Your task to perform on an android device: show emergency info Image 0: 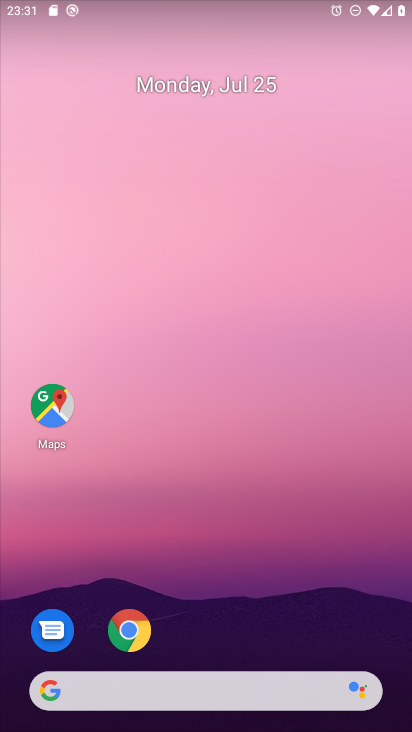
Step 0: drag from (339, 611) to (283, 53)
Your task to perform on an android device: show emergency info Image 1: 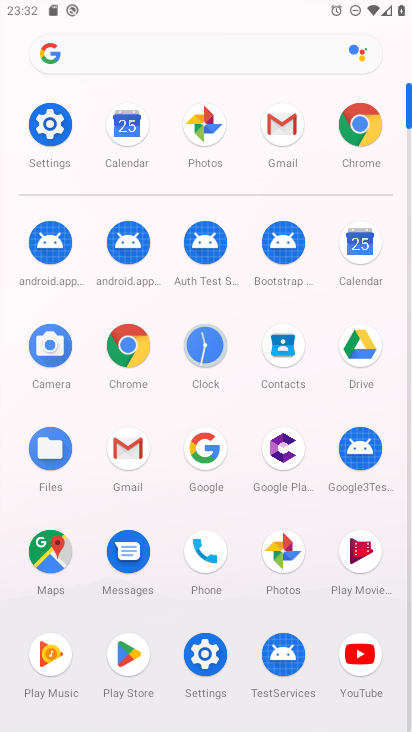
Step 1: click (52, 121)
Your task to perform on an android device: show emergency info Image 2: 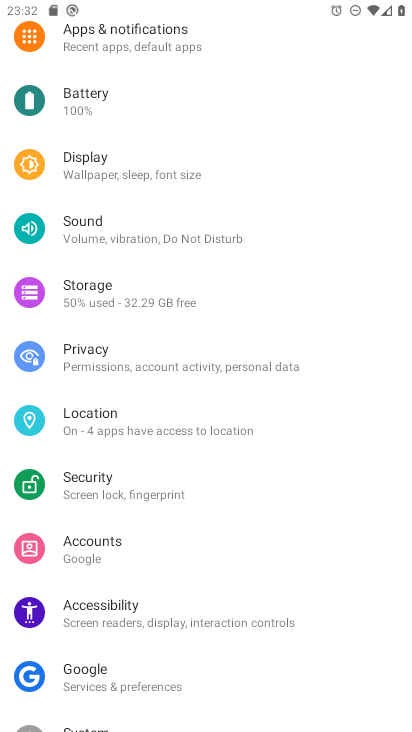
Step 2: drag from (216, 684) to (321, 188)
Your task to perform on an android device: show emergency info Image 3: 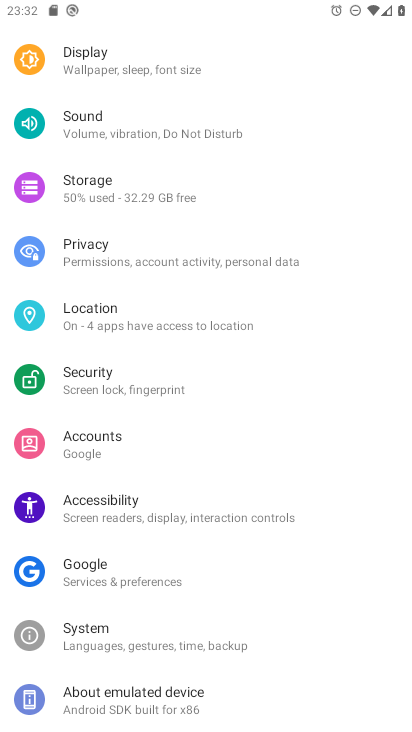
Step 3: click (165, 694)
Your task to perform on an android device: show emergency info Image 4: 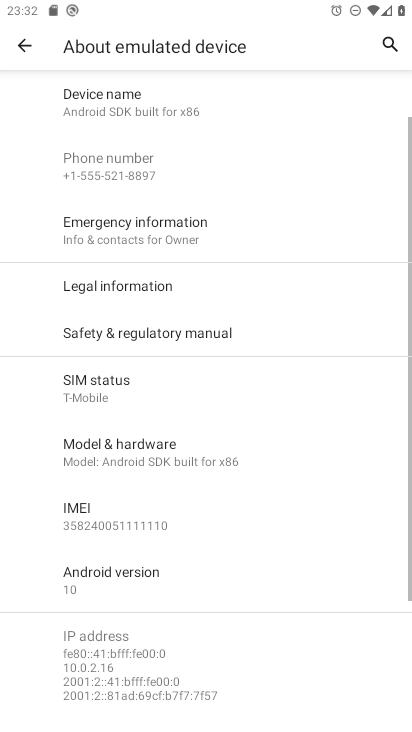
Step 4: click (143, 229)
Your task to perform on an android device: show emergency info Image 5: 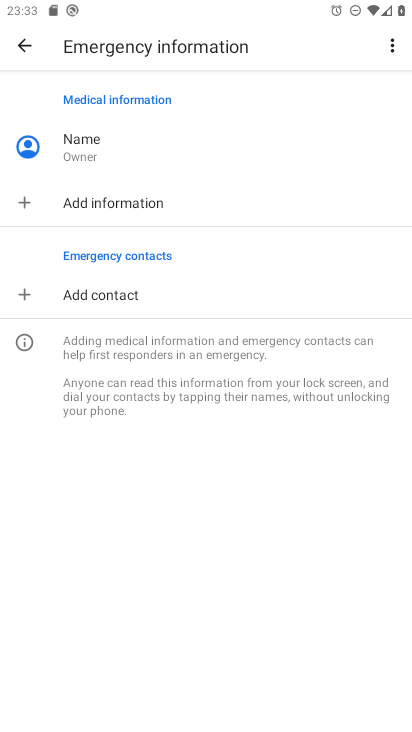
Step 5: task complete